Your task to perform on an android device: Is it going to rain today? Image 0: 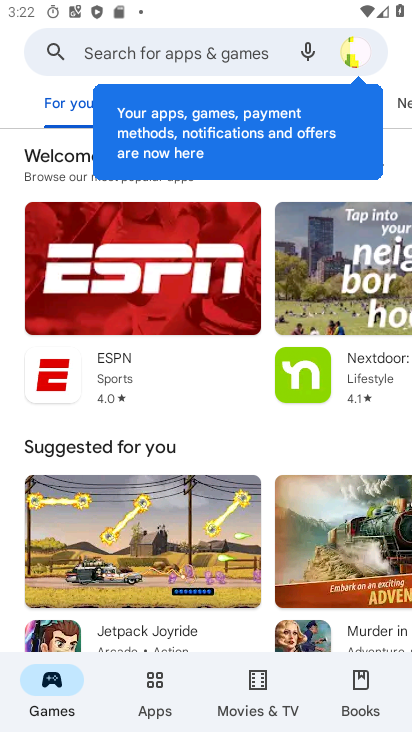
Step 0: press home button
Your task to perform on an android device: Is it going to rain today? Image 1: 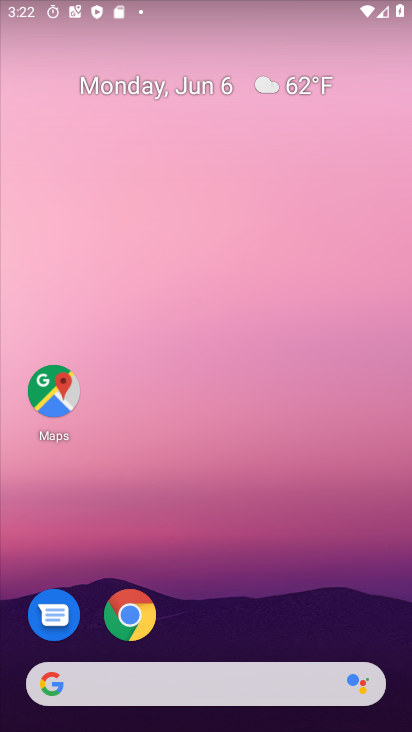
Step 1: drag from (46, 226) to (404, 192)
Your task to perform on an android device: Is it going to rain today? Image 2: 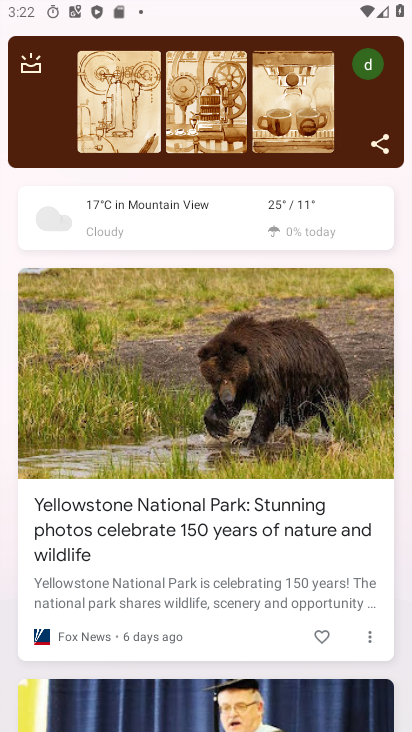
Step 2: drag from (182, 127) to (218, 673)
Your task to perform on an android device: Is it going to rain today? Image 3: 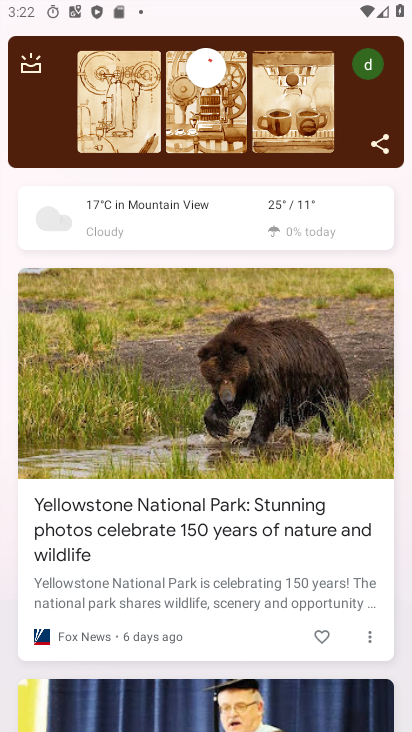
Step 3: click (246, 232)
Your task to perform on an android device: Is it going to rain today? Image 4: 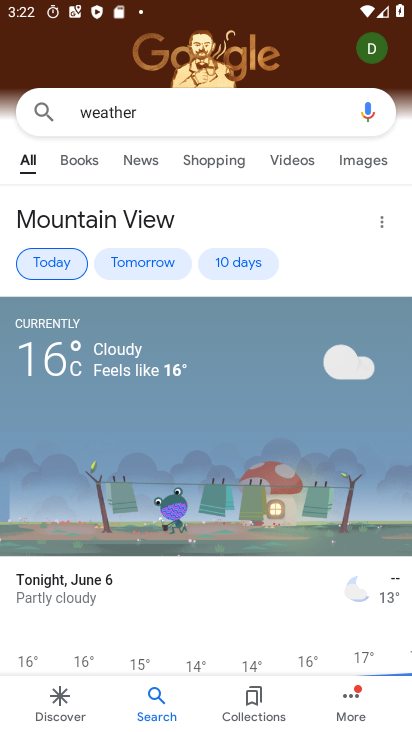
Step 4: task complete